Your task to perform on an android device: turn on improve location accuracy Image 0: 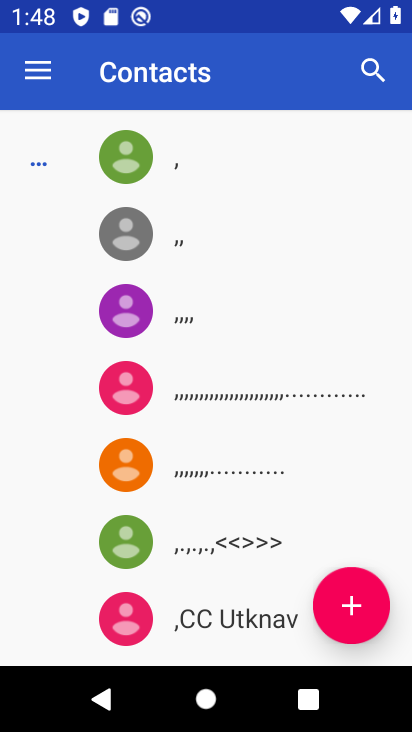
Step 0: press home button
Your task to perform on an android device: turn on improve location accuracy Image 1: 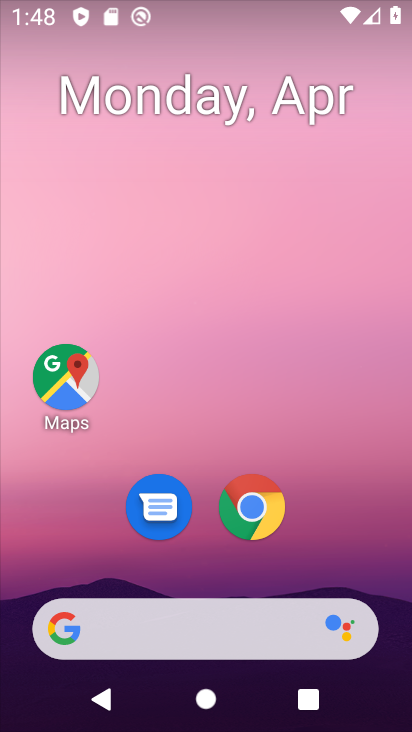
Step 1: drag from (398, 638) to (329, 104)
Your task to perform on an android device: turn on improve location accuracy Image 2: 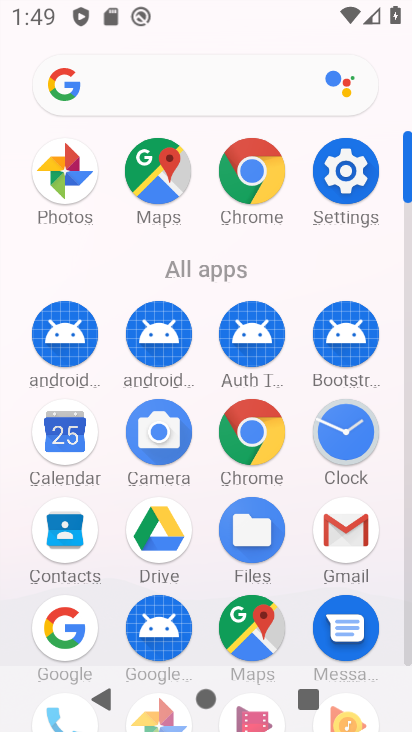
Step 2: click (406, 644)
Your task to perform on an android device: turn on improve location accuracy Image 3: 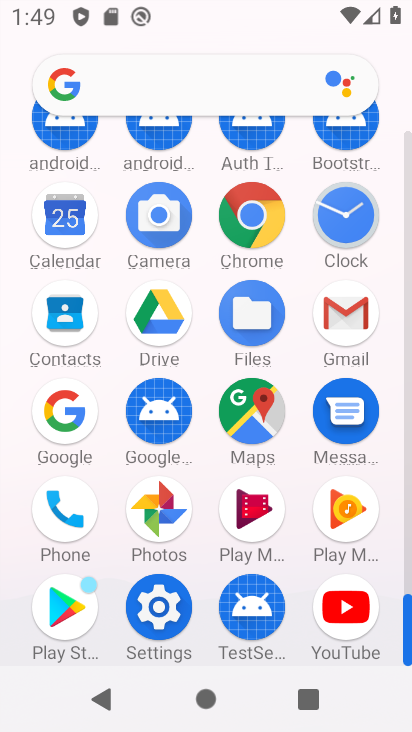
Step 3: click (160, 609)
Your task to perform on an android device: turn on improve location accuracy Image 4: 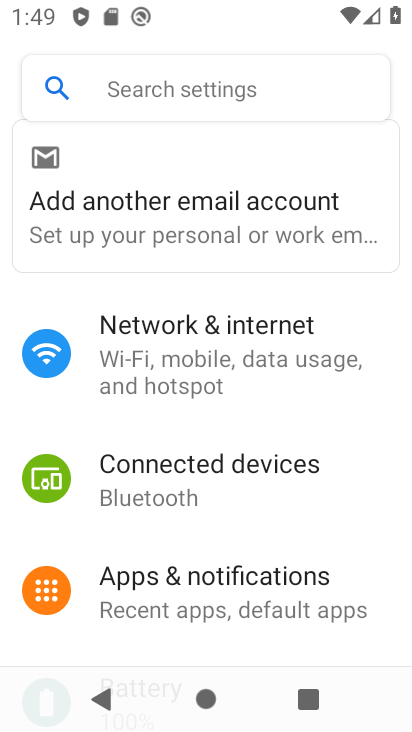
Step 4: drag from (366, 572) to (378, 184)
Your task to perform on an android device: turn on improve location accuracy Image 5: 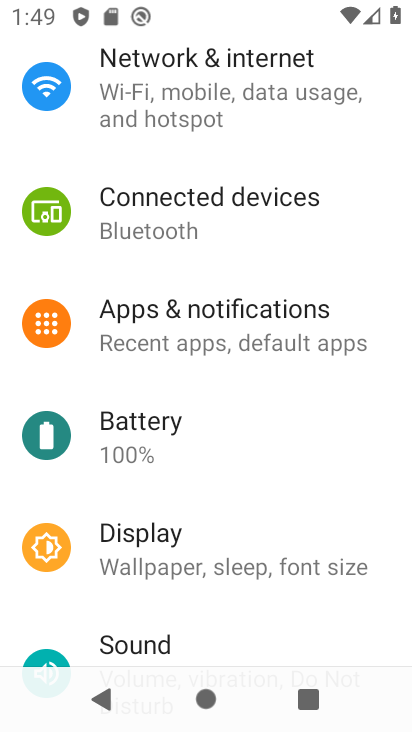
Step 5: drag from (369, 624) to (375, 238)
Your task to perform on an android device: turn on improve location accuracy Image 6: 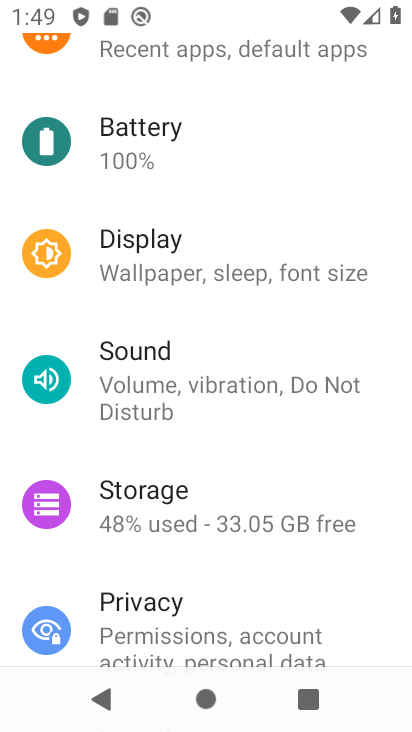
Step 6: drag from (345, 611) to (385, 201)
Your task to perform on an android device: turn on improve location accuracy Image 7: 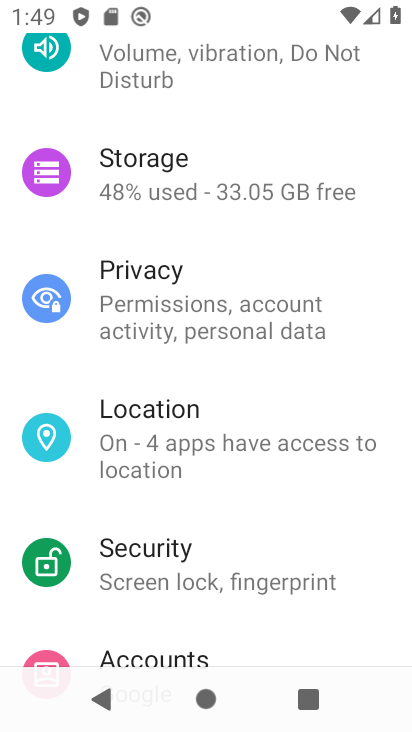
Step 7: click (128, 438)
Your task to perform on an android device: turn on improve location accuracy Image 8: 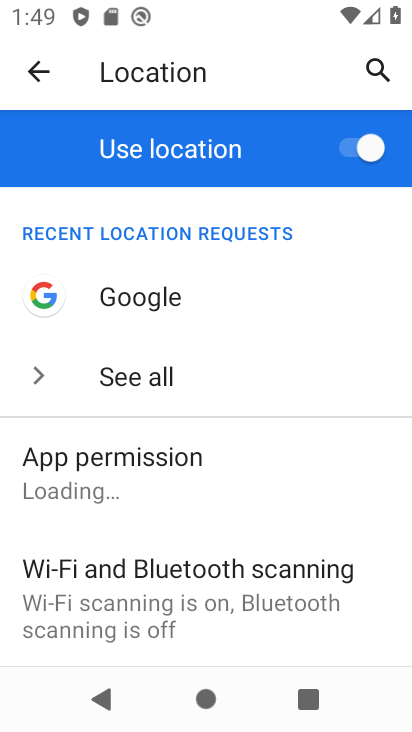
Step 8: drag from (367, 582) to (312, 129)
Your task to perform on an android device: turn on improve location accuracy Image 9: 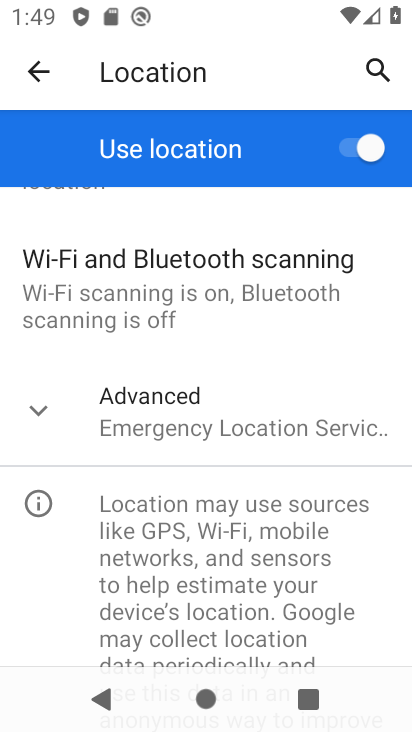
Step 9: click (39, 407)
Your task to perform on an android device: turn on improve location accuracy Image 10: 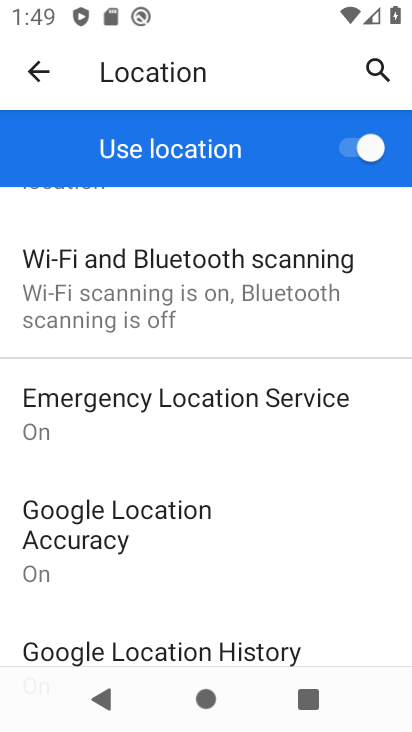
Step 10: drag from (334, 613) to (363, 284)
Your task to perform on an android device: turn on improve location accuracy Image 11: 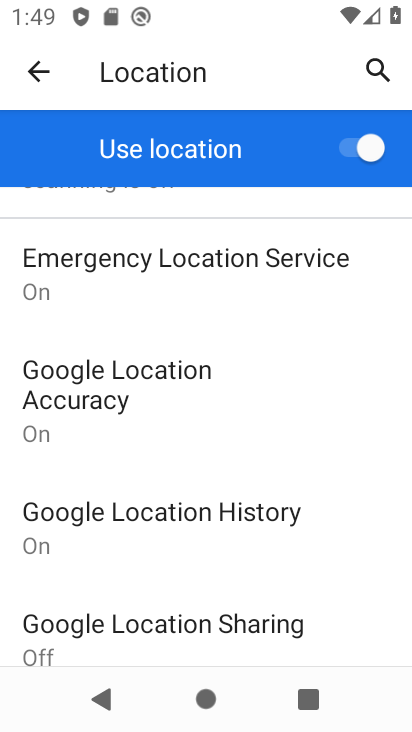
Step 11: click (79, 385)
Your task to perform on an android device: turn on improve location accuracy Image 12: 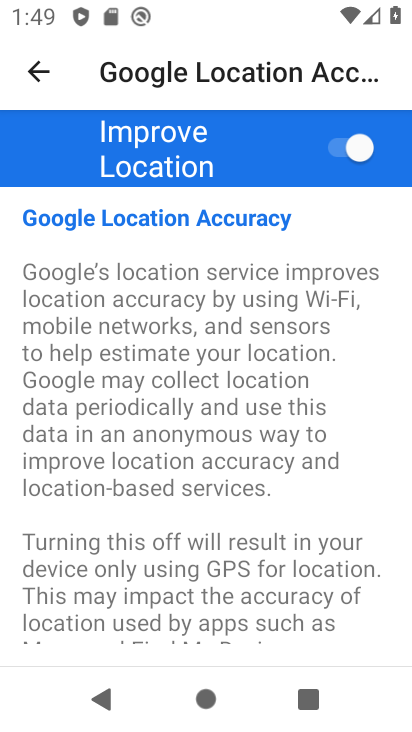
Step 12: task complete